Your task to perform on an android device: all mails in gmail Image 0: 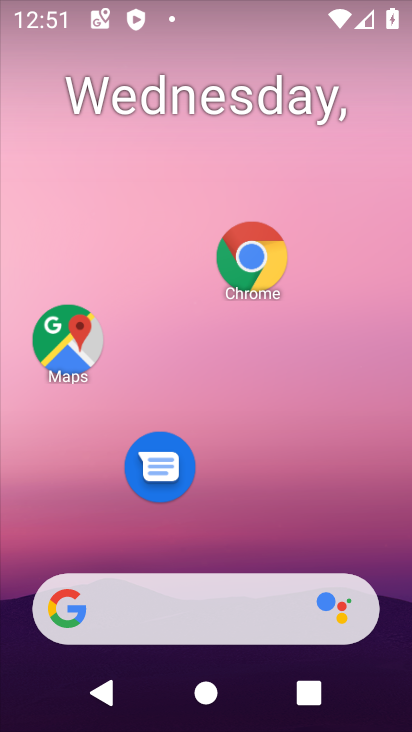
Step 0: press home button
Your task to perform on an android device: all mails in gmail Image 1: 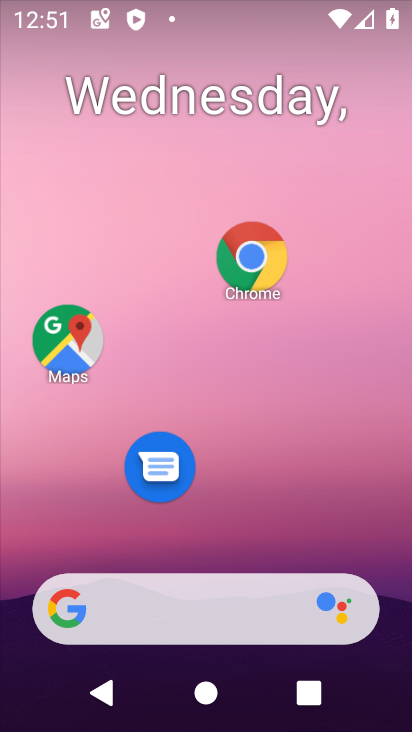
Step 1: drag from (376, 639) to (186, 2)
Your task to perform on an android device: all mails in gmail Image 2: 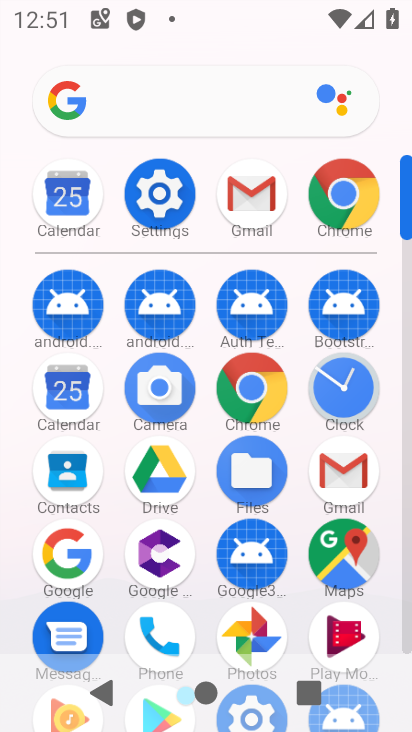
Step 2: click (263, 184)
Your task to perform on an android device: all mails in gmail Image 3: 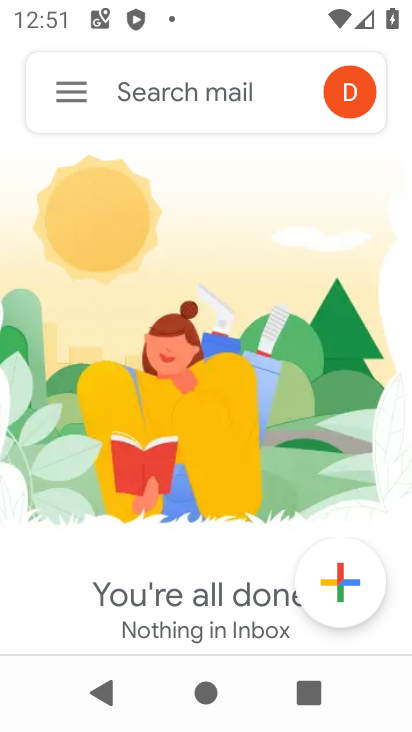
Step 3: click (79, 95)
Your task to perform on an android device: all mails in gmail Image 4: 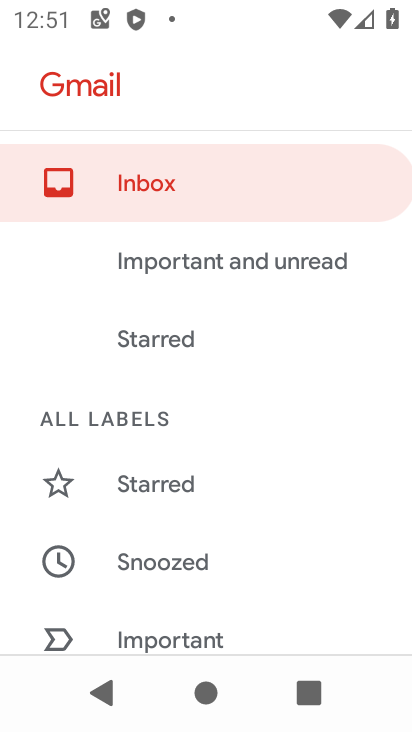
Step 4: drag from (240, 592) to (243, 221)
Your task to perform on an android device: all mails in gmail Image 5: 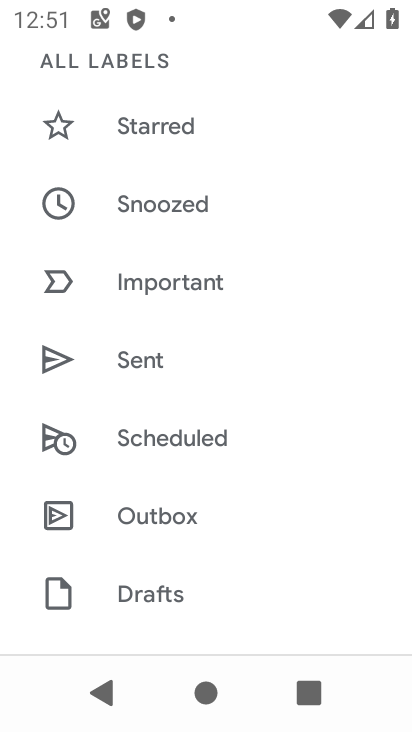
Step 5: drag from (172, 507) to (164, 215)
Your task to perform on an android device: all mails in gmail Image 6: 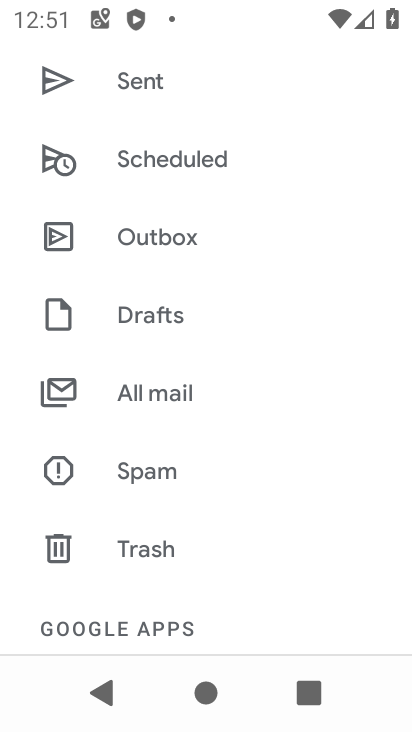
Step 6: click (160, 400)
Your task to perform on an android device: all mails in gmail Image 7: 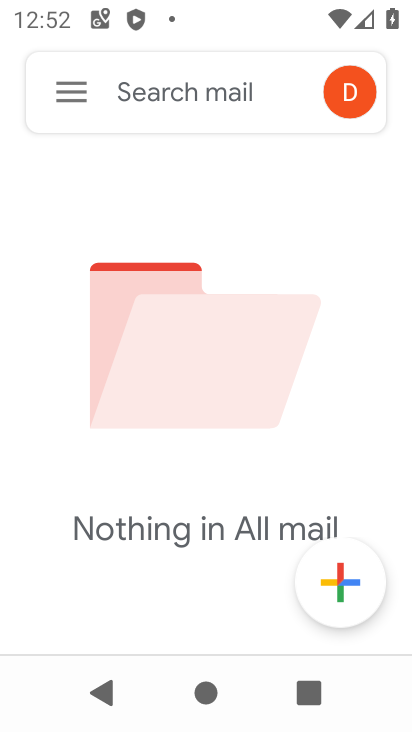
Step 7: task complete